Your task to perform on an android device: open device folders in google photos Image 0: 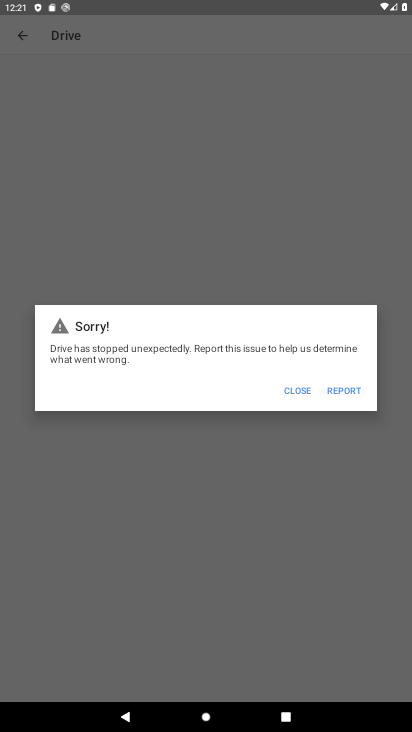
Step 0: press home button
Your task to perform on an android device: open device folders in google photos Image 1: 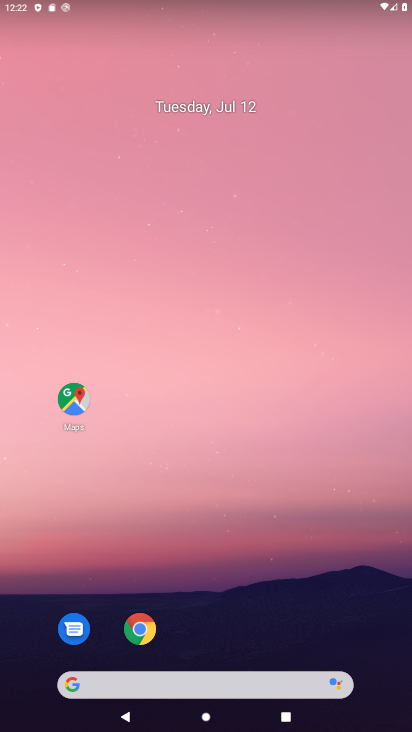
Step 1: drag from (225, 688) to (244, 79)
Your task to perform on an android device: open device folders in google photos Image 2: 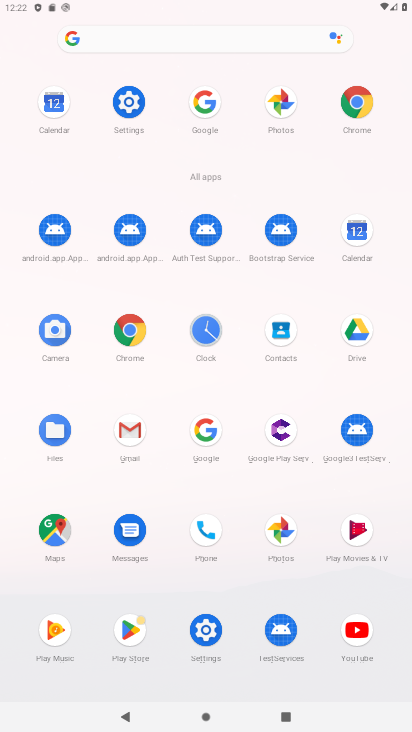
Step 2: click (270, 536)
Your task to perform on an android device: open device folders in google photos Image 3: 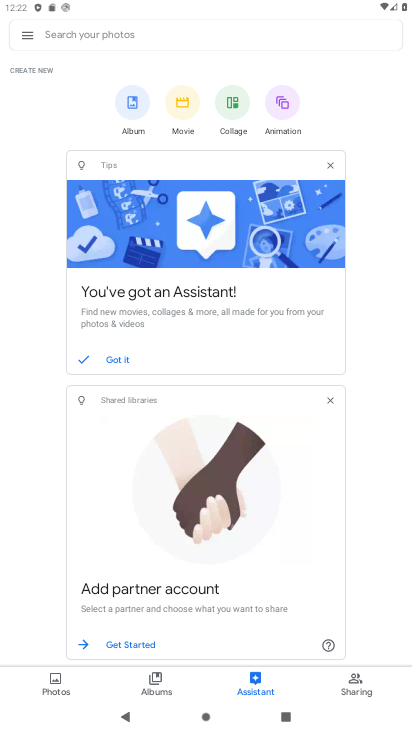
Step 3: click (22, 32)
Your task to perform on an android device: open device folders in google photos Image 4: 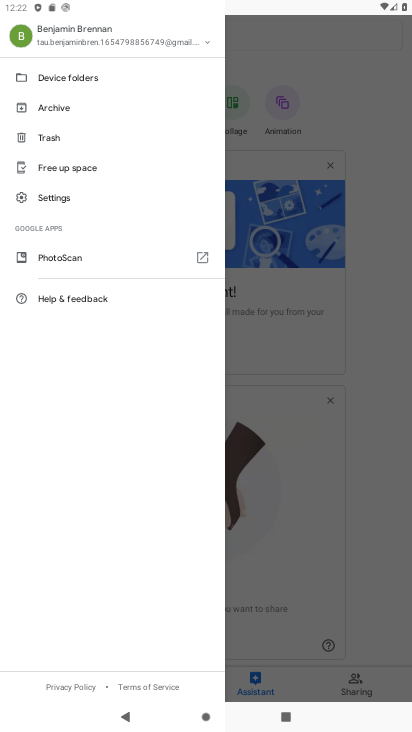
Step 4: click (84, 84)
Your task to perform on an android device: open device folders in google photos Image 5: 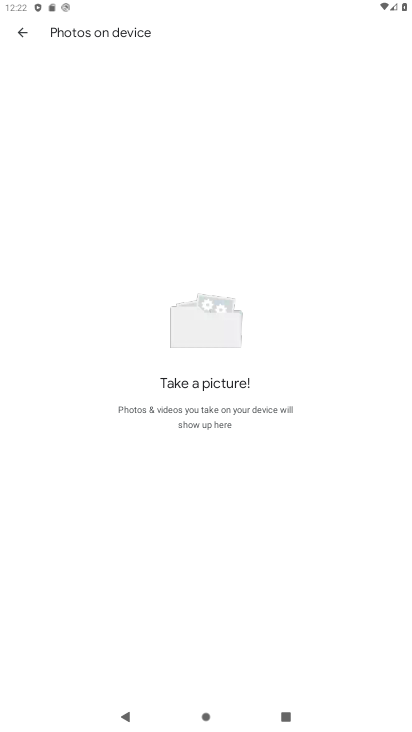
Step 5: task complete